Your task to perform on an android device: install app "LiveIn - Share Your Moment" Image 0: 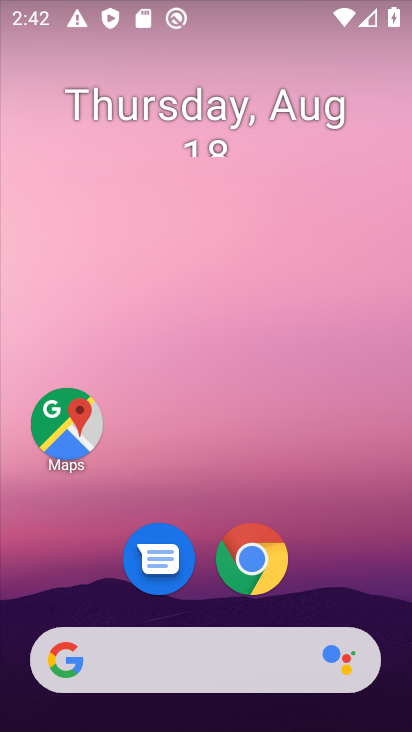
Step 0: drag from (264, 580) to (256, 2)
Your task to perform on an android device: install app "LiveIn - Share Your Moment" Image 1: 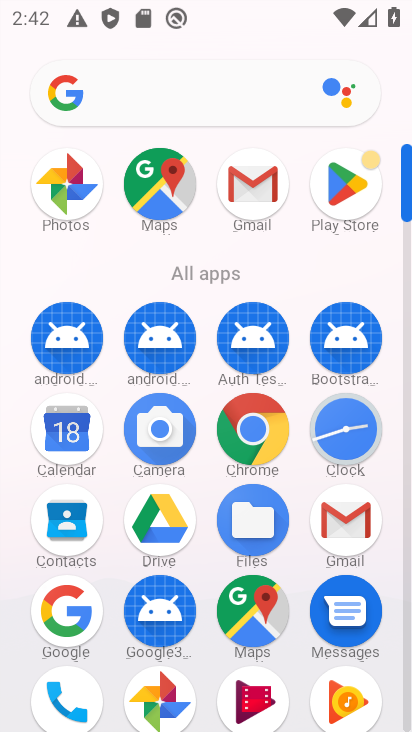
Step 1: click (353, 181)
Your task to perform on an android device: install app "LiveIn - Share Your Moment" Image 2: 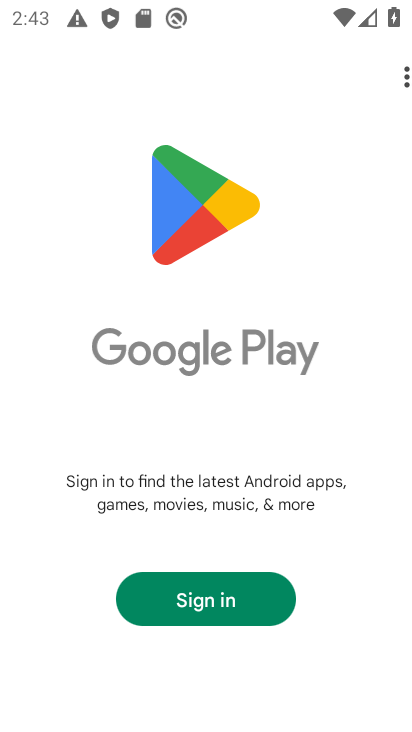
Step 2: click (169, 610)
Your task to perform on an android device: install app "LiveIn - Share Your Moment" Image 3: 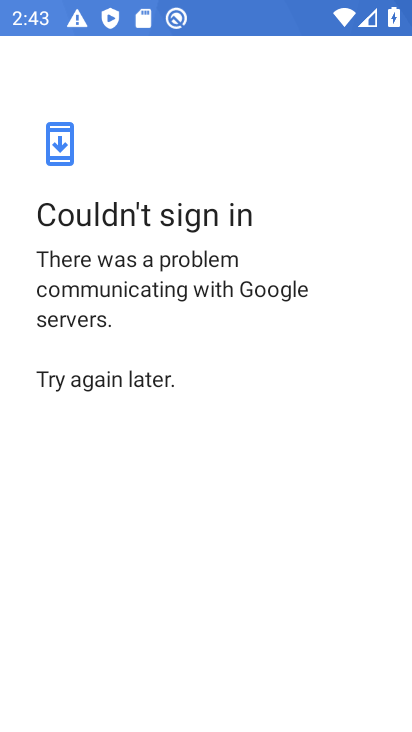
Step 3: task complete